Your task to perform on an android device: Open the phone app and click the voicemail tab. Image 0: 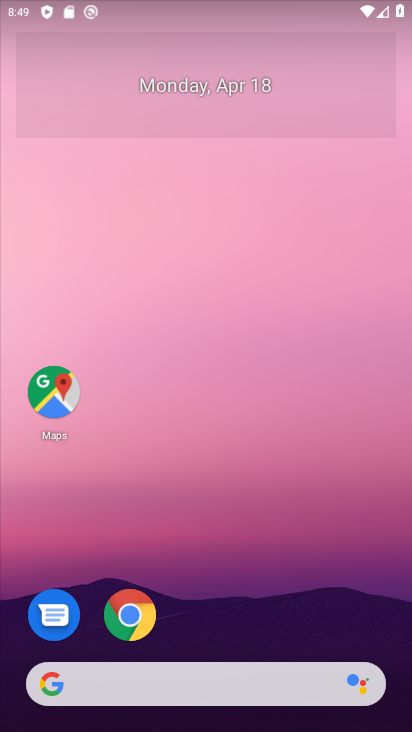
Step 0: drag from (350, 605) to (352, 98)
Your task to perform on an android device: Open the phone app and click the voicemail tab. Image 1: 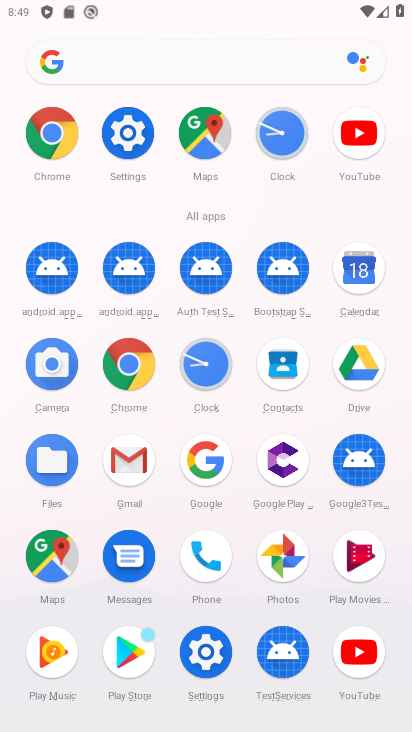
Step 1: click (212, 564)
Your task to perform on an android device: Open the phone app and click the voicemail tab. Image 2: 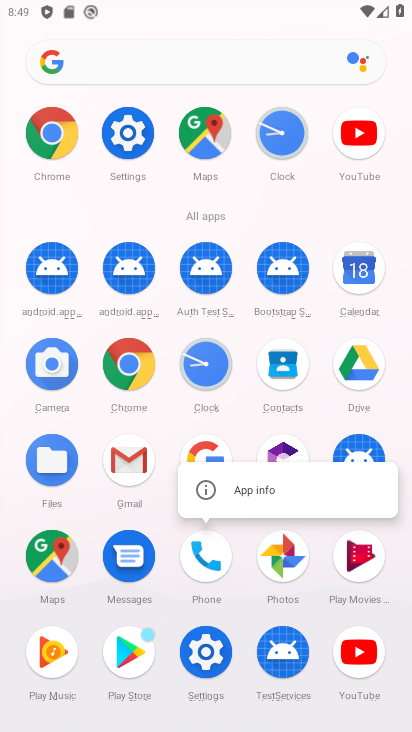
Step 2: drag from (400, 580) to (379, 309)
Your task to perform on an android device: Open the phone app and click the voicemail tab. Image 3: 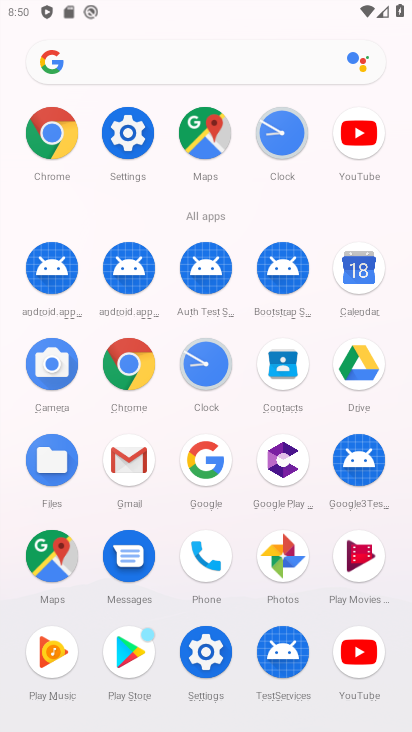
Step 3: click (196, 569)
Your task to perform on an android device: Open the phone app and click the voicemail tab. Image 4: 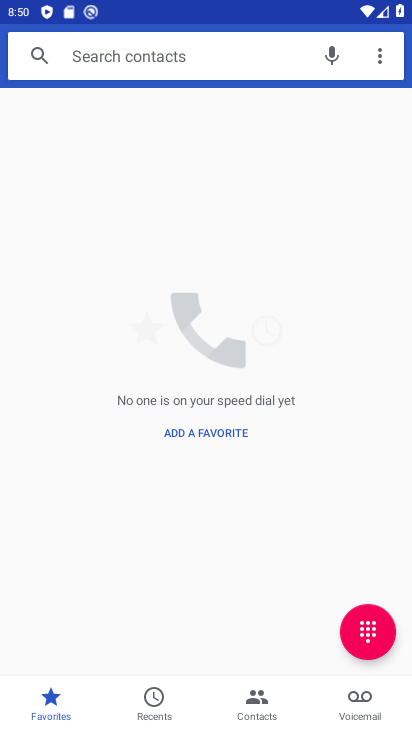
Step 4: click (367, 715)
Your task to perform on an android device: Open the phone app and click the voicemail tab. Image 5: 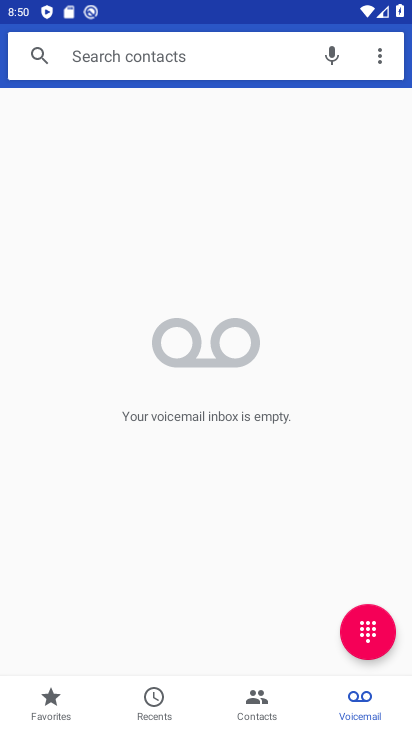
Step 5: task complete